Your task to perform on an android device: uninstall "Messages" Image 0: 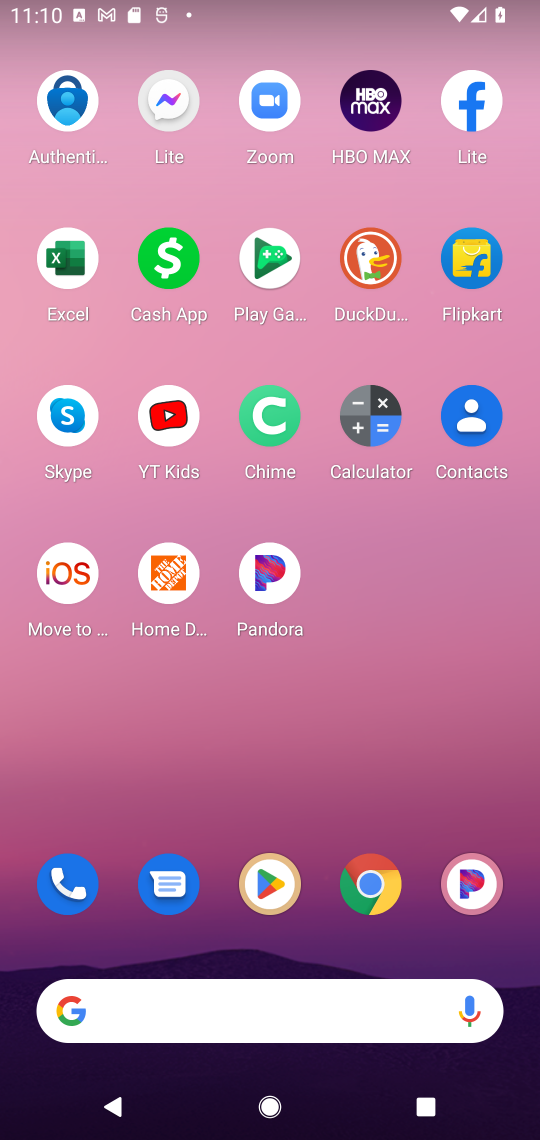
Step 0: drag from (164, 992) to (265, 40)
Your task to perform on an android device: uninstall "Messages" Image 1: 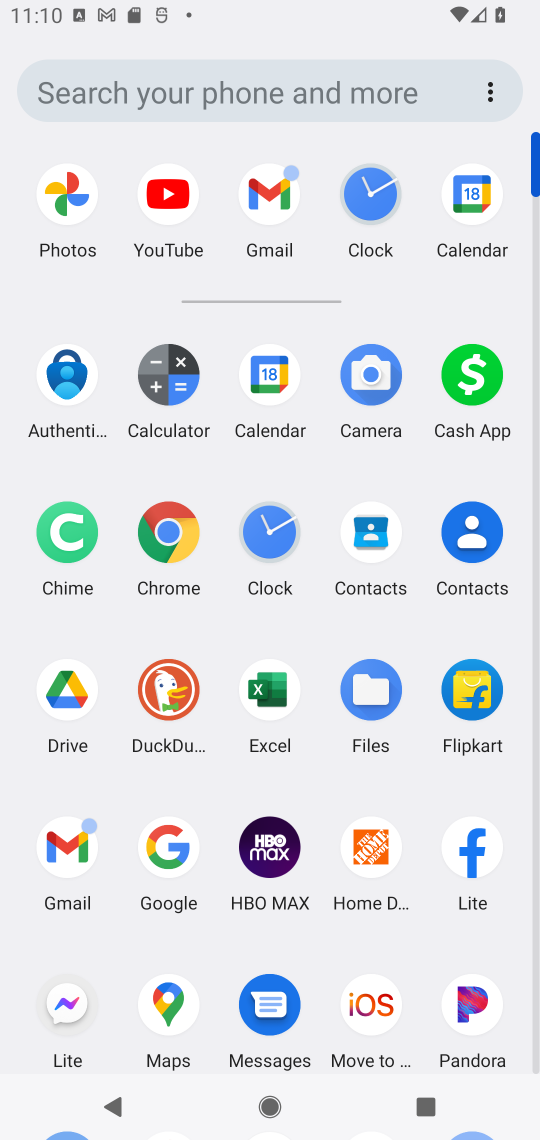
Step 1: drag from (339, 957) to (245, 408)
Your task to perform on an android device: uninstall "Messages" Image 2: 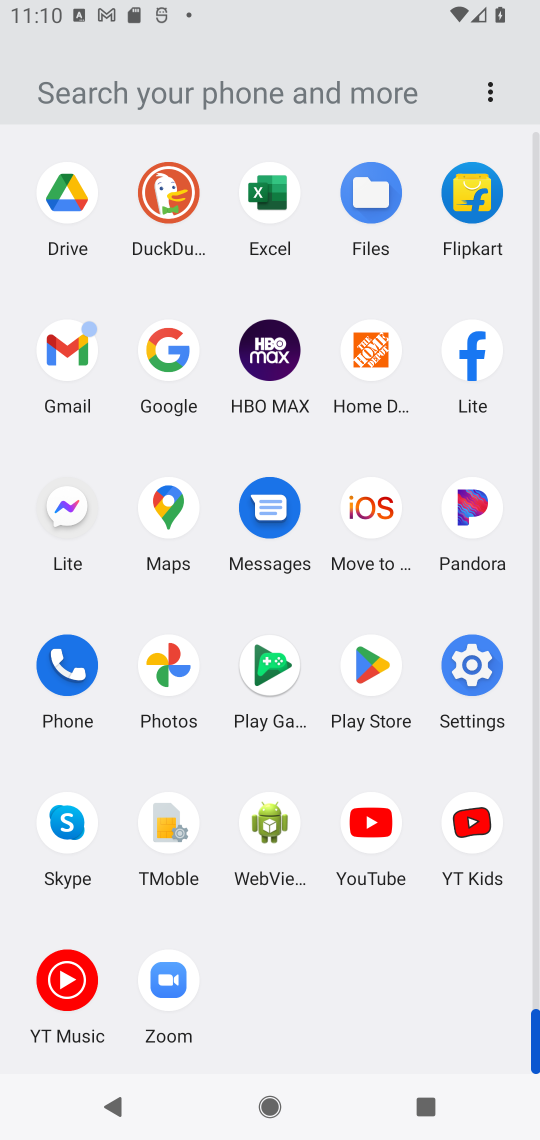
Step 2: click (369, 669)
Your task to perform on an android device: uninstall "Messages" Image 3: 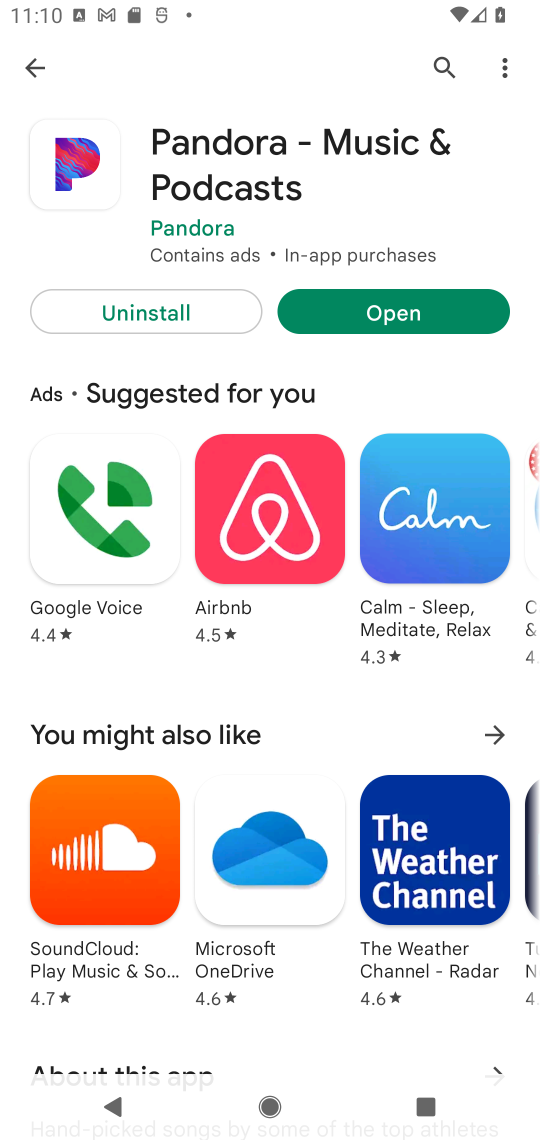
Step 3: press back button
Your task to perform on an android device: uninstall "Messages" Image 4: 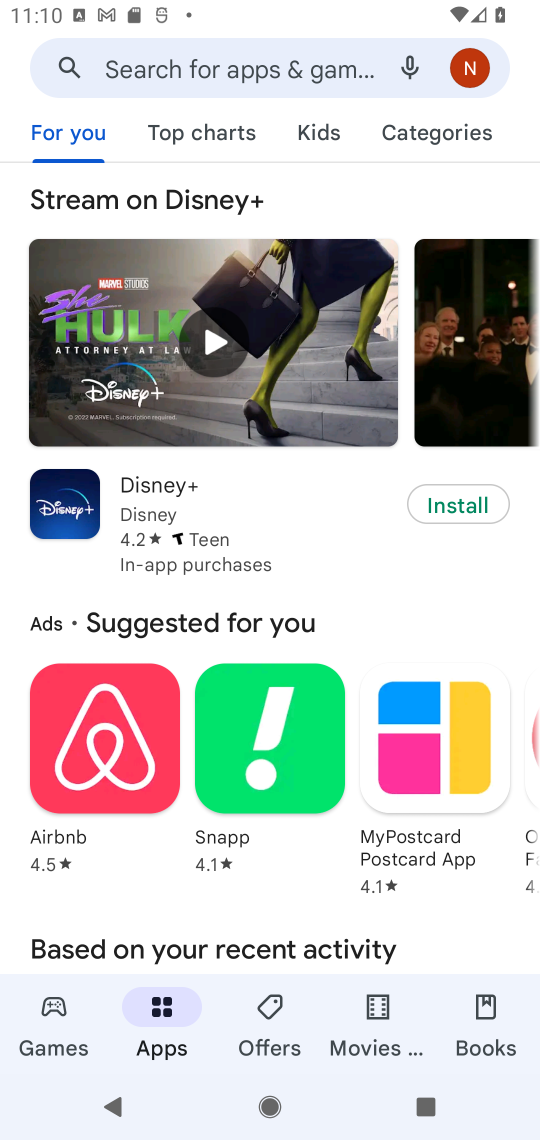
Step 4: click (281, 55)
Your task to perform on an android device: uninstall "Messages" Image 5: 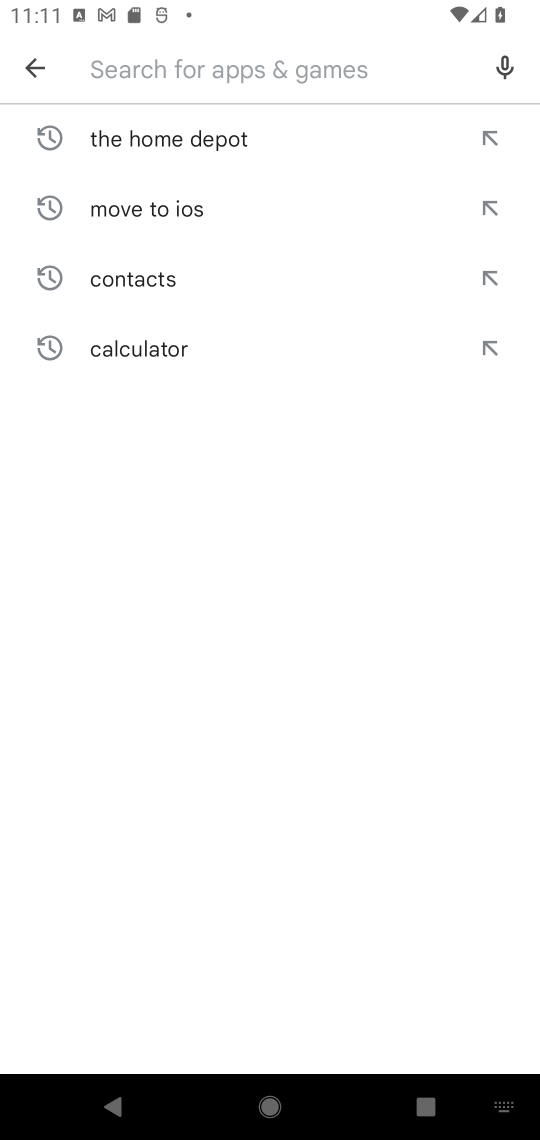
Step 5: type "Messages"
Your task to perform on an android device: uninstall "Messages" Image 6: 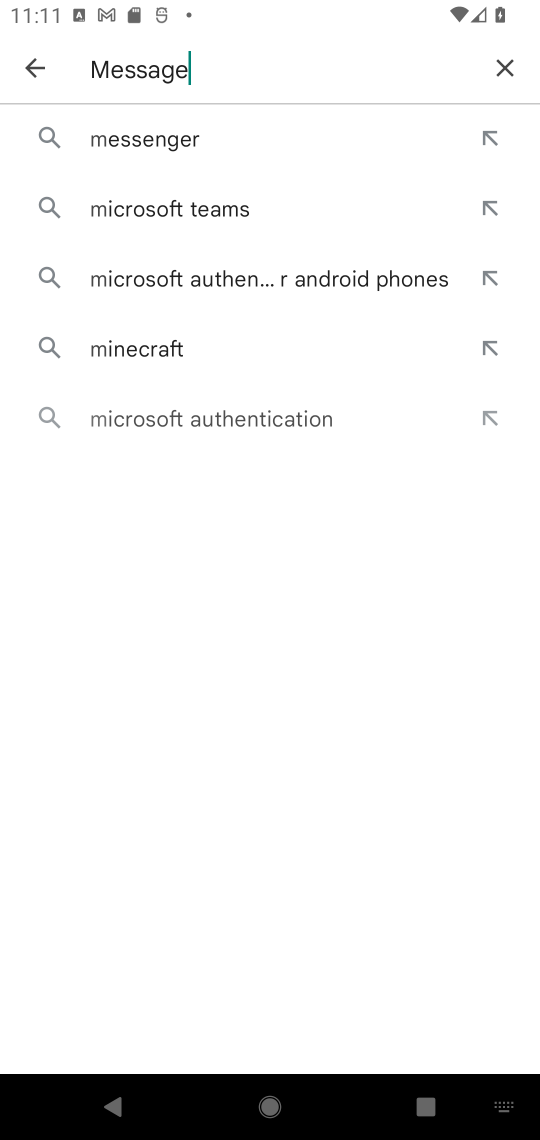
Step 6: type ""
Your task to perform on an android device: uninstall "Messages" Image 7: 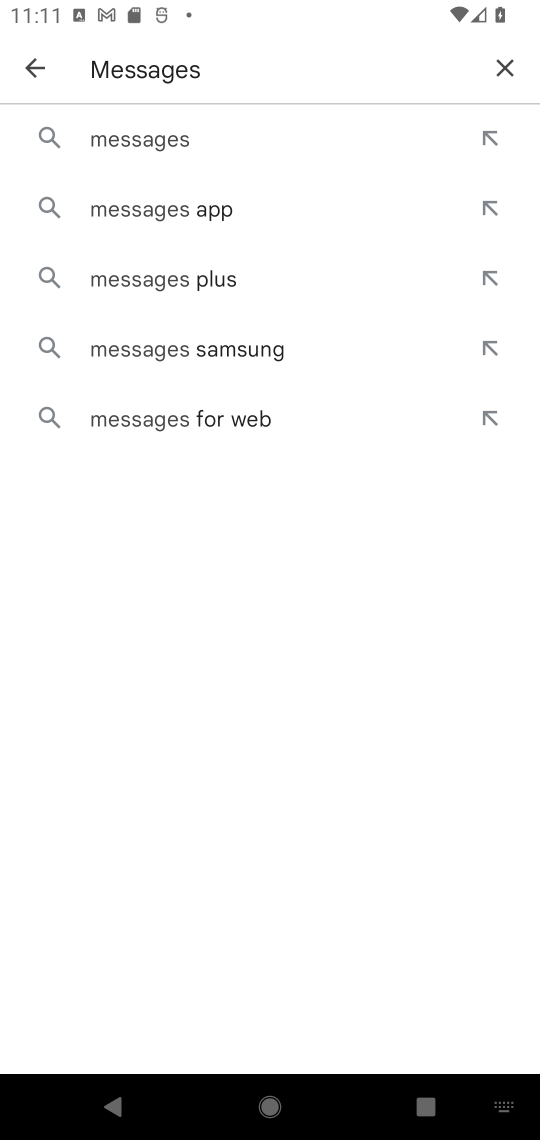
Step 7: click (172, 132)
Your task to perform on an android device: uninstall "Messages" Image 8: 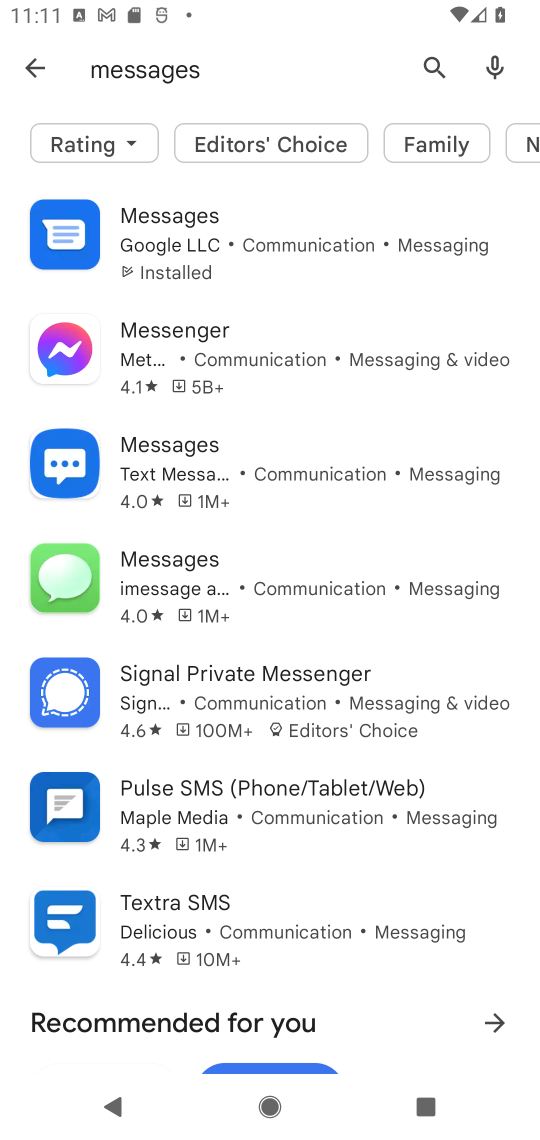
Step 8: click (186, 223)
Your task to perform on an android device: uninstall "Messages" Image 9: 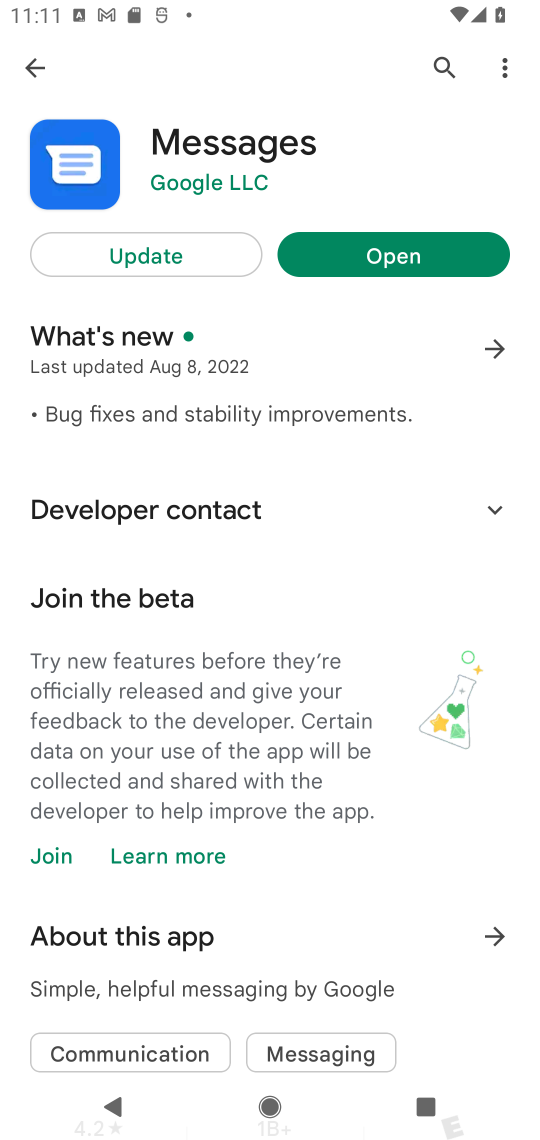
Step 9: click (191, 252)
Your task to perform on an android device: uninstall "Messages" Image 10: 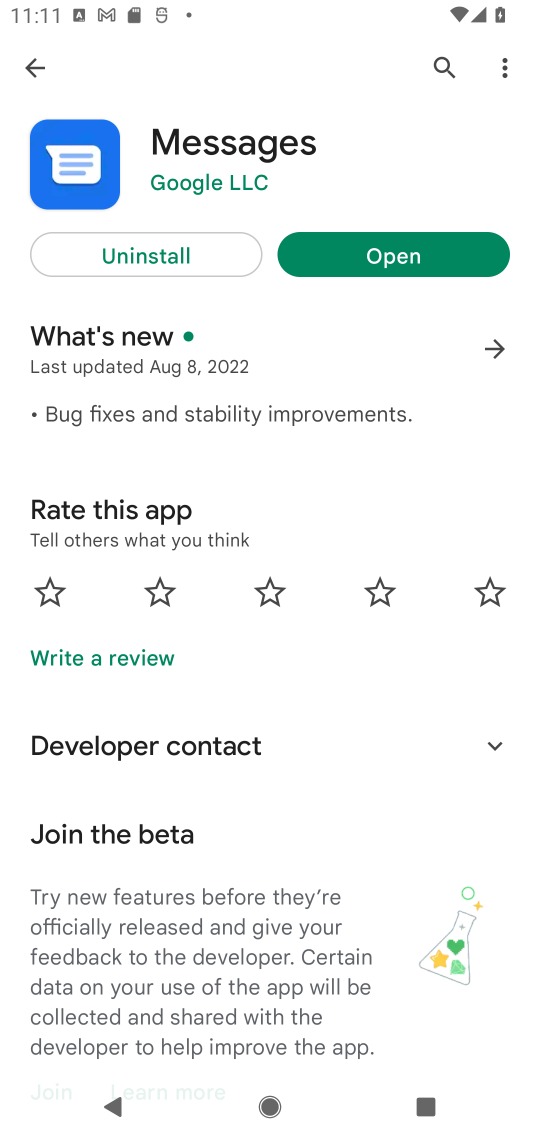
Step 10: click (158, 252)
Your task to perform on an android device: uninstall "Messages" Image 11: 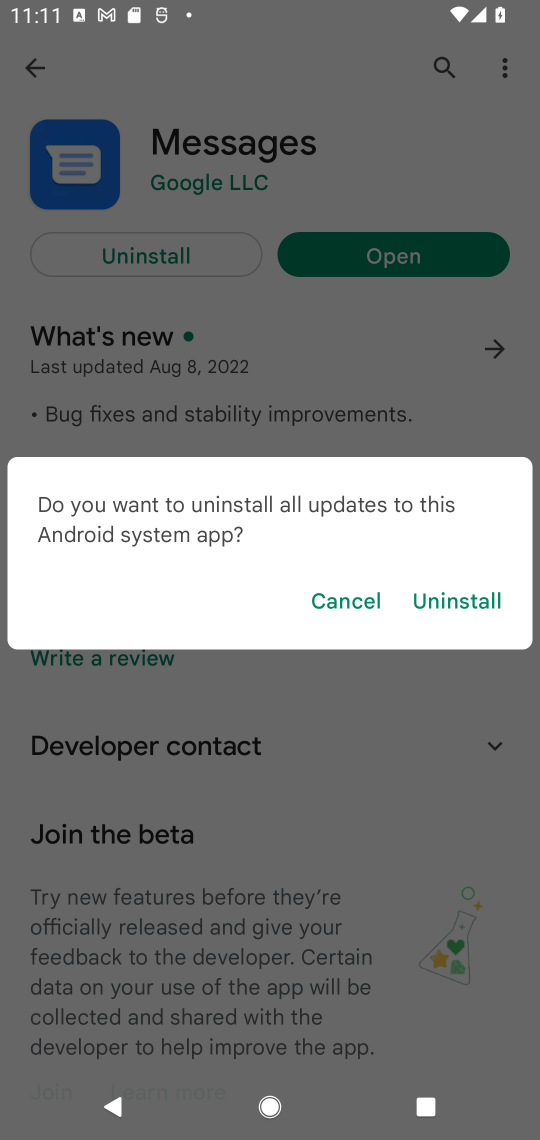
Step 11: click (468, 592)
Your task to perform on an android device: uninstall "Messages" Image 12: 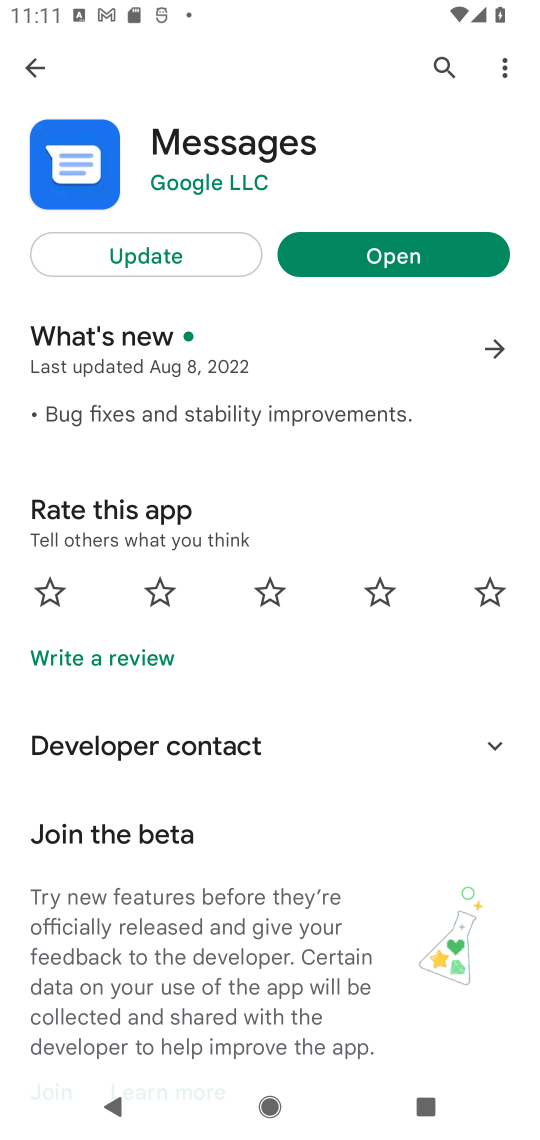
Step 12: task complete